Your task to perform on an android device: Open ESPN.com Image 0: 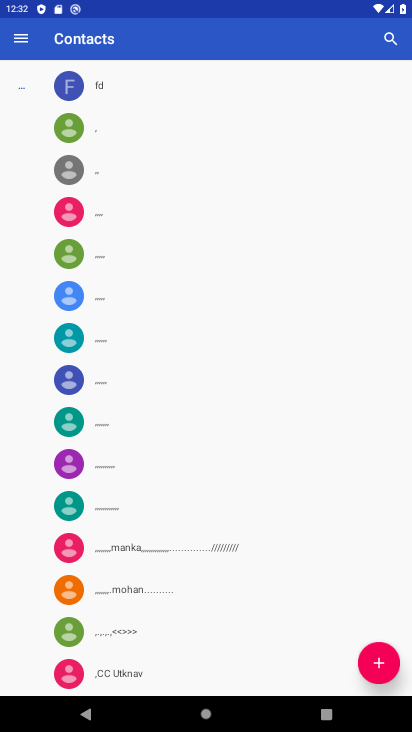
Step 0: press home button
Your task to perform on an android device: Open ESPN.com Image 1: 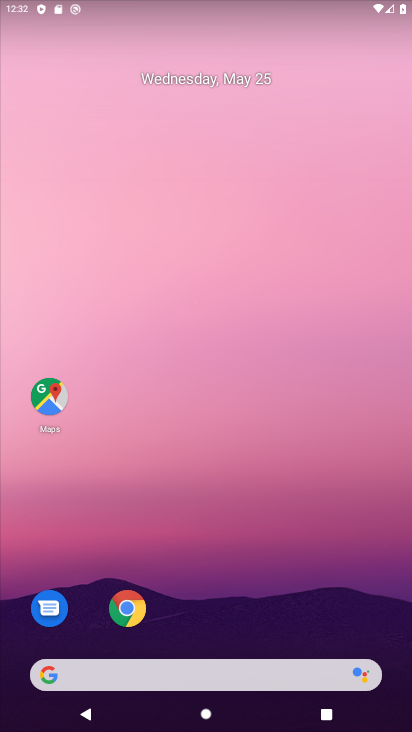
Step 1: click (231, 683)
Your task to perform on an android device: Open ESPN.com Image 2: 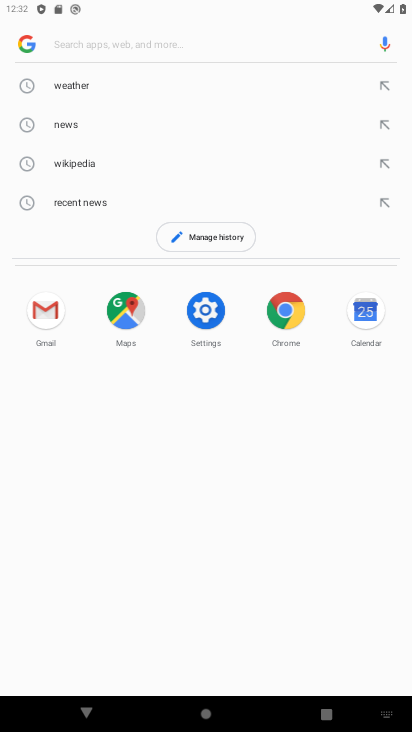
Step 2: type "espn.com"
Your task to perform on an android device: Open ESPN.com Image 3: 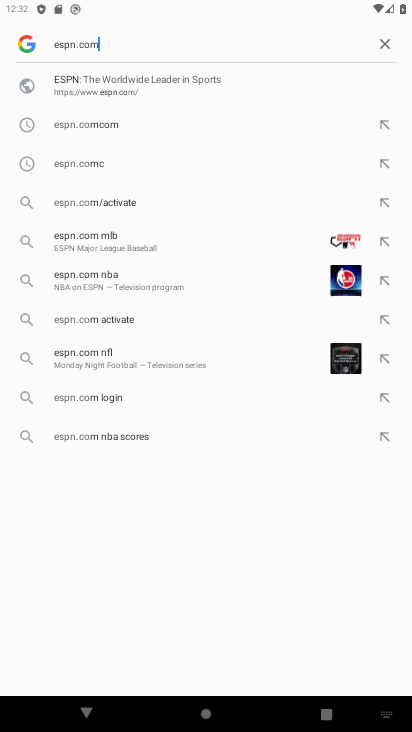
Step 3: click (153, 83)
Your task to perform on an android device: Open ESPN.com Image 4: 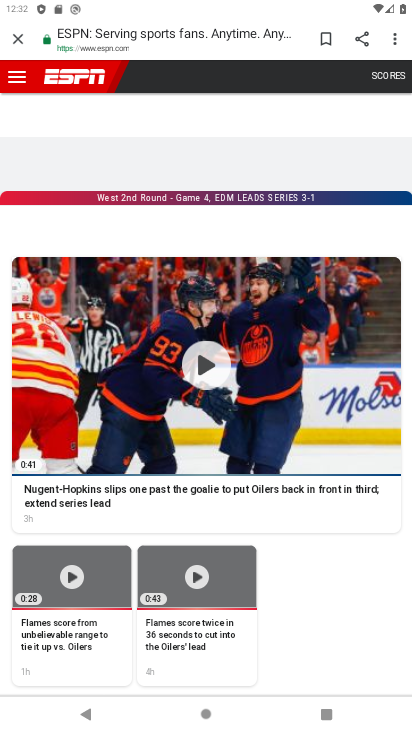
Step 4: task complete